Your task to perform on an android device: add a contact in the contacts app Image 0: 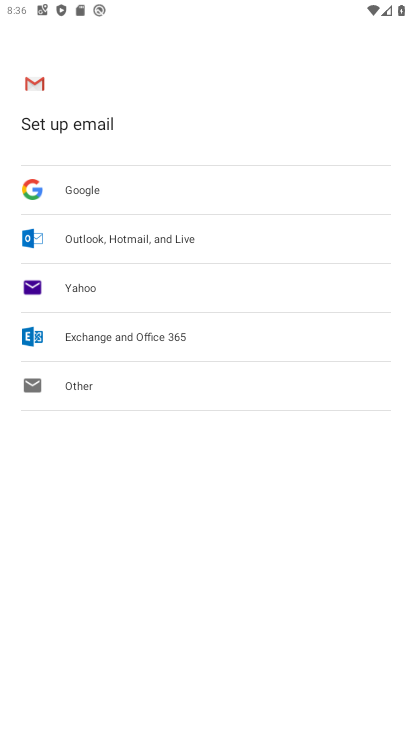
Step 0: drag from (185, 575) to (224, 389)
Your task to perform on an android device: add a contact in the contacts app Image 1: 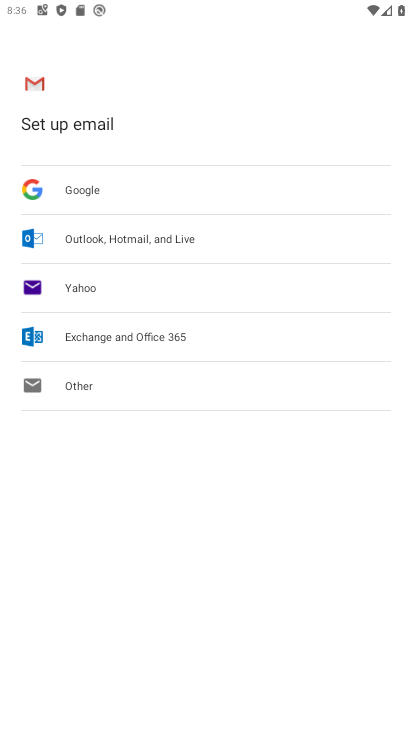
Step 1: drag from (248, 547) to (283, 127)
Your task to perform on an android device: add a contact in the contacts app Image 2: 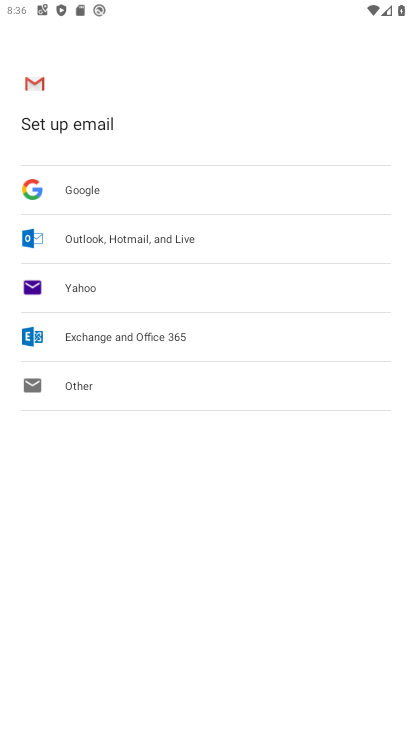
Step 2: drag from (210, 562) to (249, 184)
Your task to perform on an android device: add a contact in the contacts app Image 3: 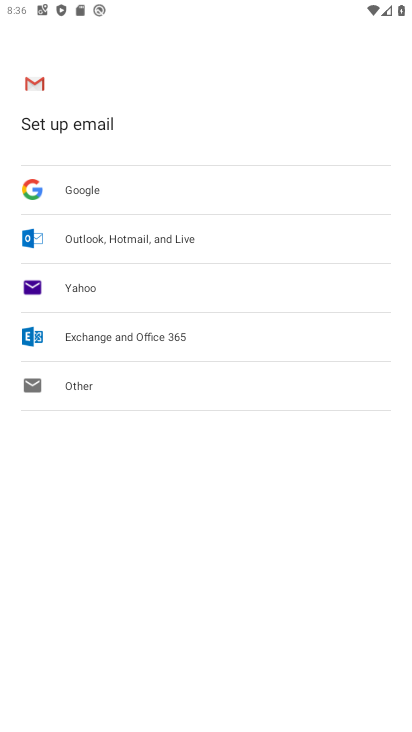
Step 3: press home button
Your task to perform on an android device: add a contact in the contacts app Image 4: 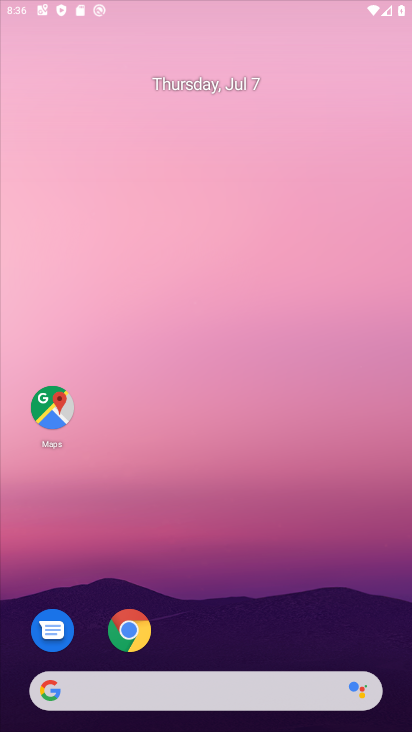
Step 4: drag from (172, 553) to (224, 177)
Your task to perform on an android device: add a contact in the contacts app Image 5: 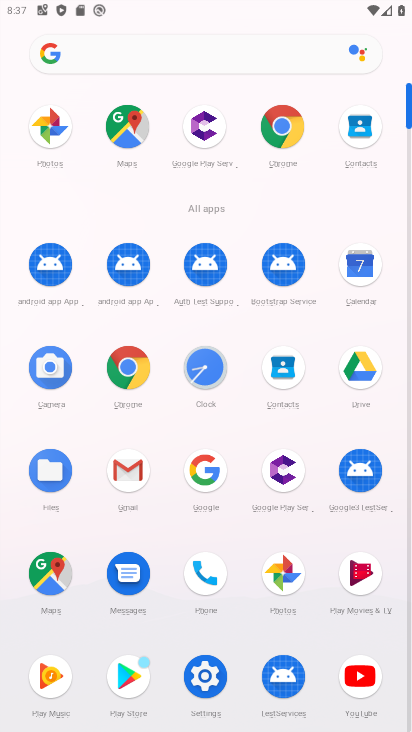
Step 5: click (282, 371)
Your task to perform on an android device: add a contact in the contacts app Image 6: 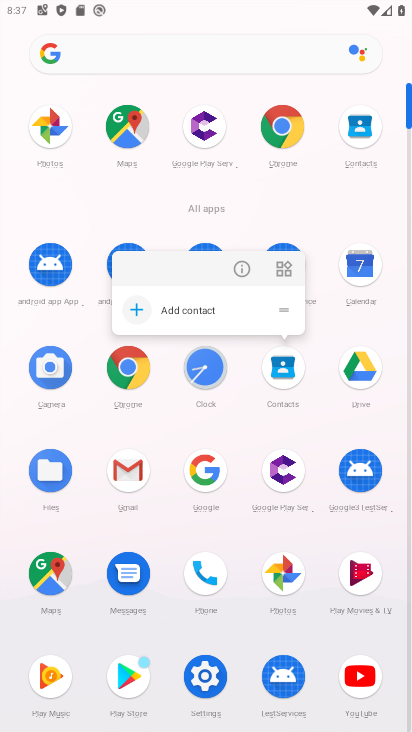
Step 6: click (240, 264)
Your task to perform on an android device: add a contact in the contacts app Image 7: 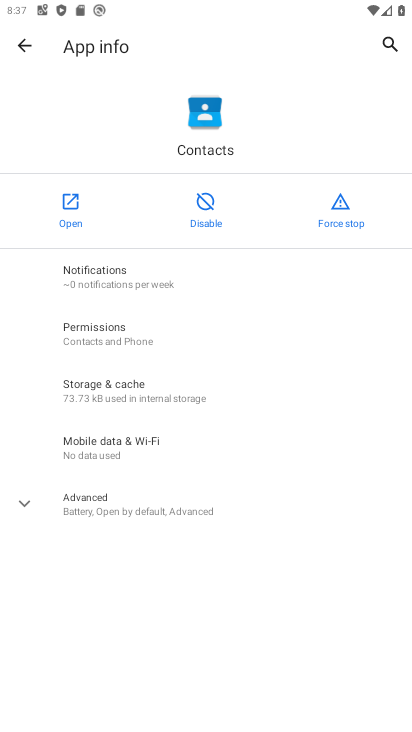
Step 7: click (61, 219)
Your task to perform on an android device: add a contact in the contacts app Image 8: 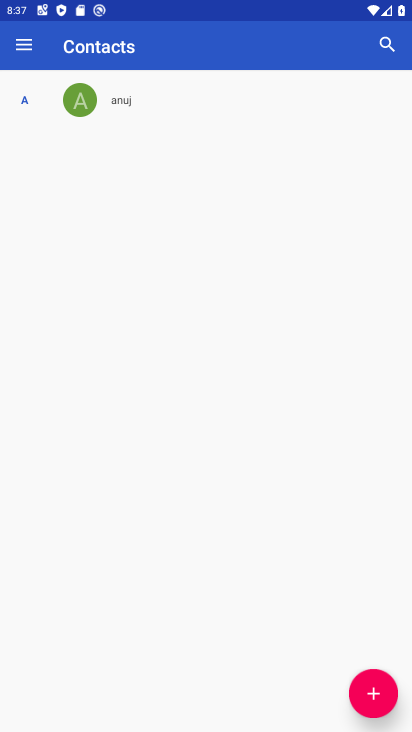
Step 8: drag from (298, 551) to (236, 282)
Your task to perform on an android device: add a contact in the contacts app Image 9: 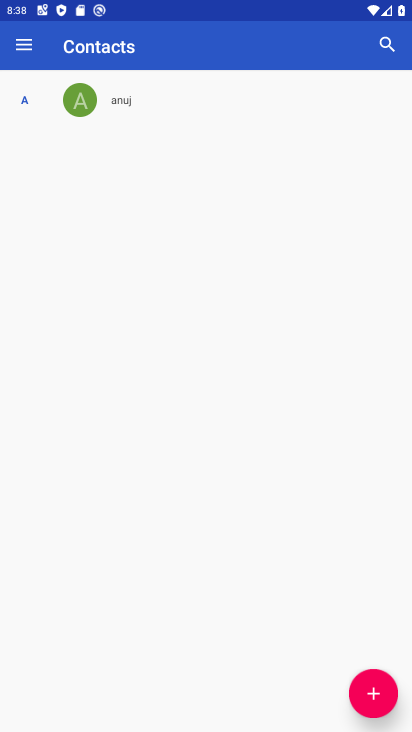
Step 9: drag from (189, 409) to (218, 147)
Your task to perform on an android device: add a contact in the contacts app Image 10: 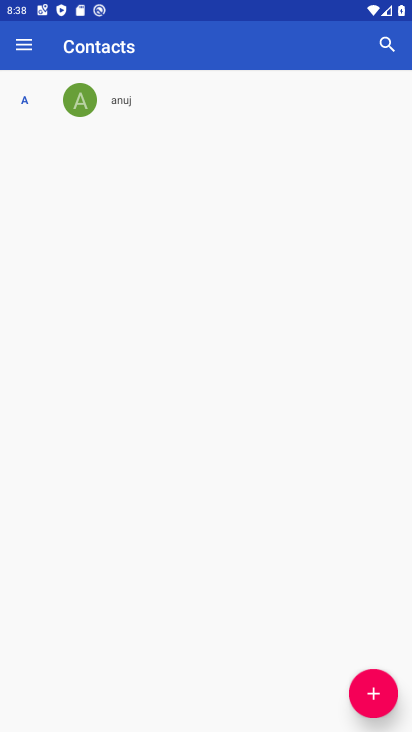
Step 10: click (370, 686)
Your task to perform on an android device: add a contact in the contacts app Image 11: 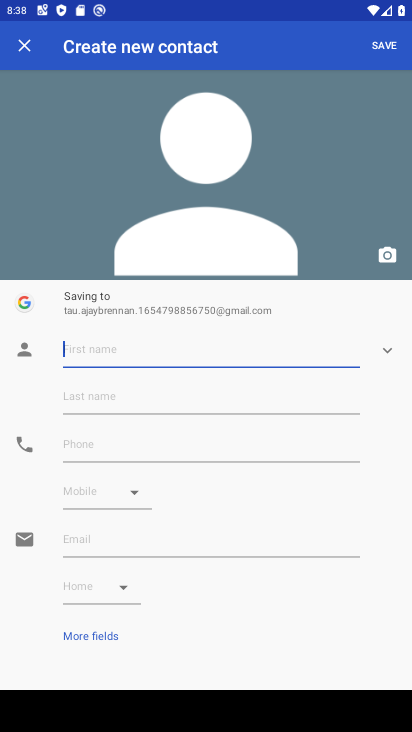
Step 11: type "smak"
Your task to perform on an android device: add a contact in the contacts app Image 12: 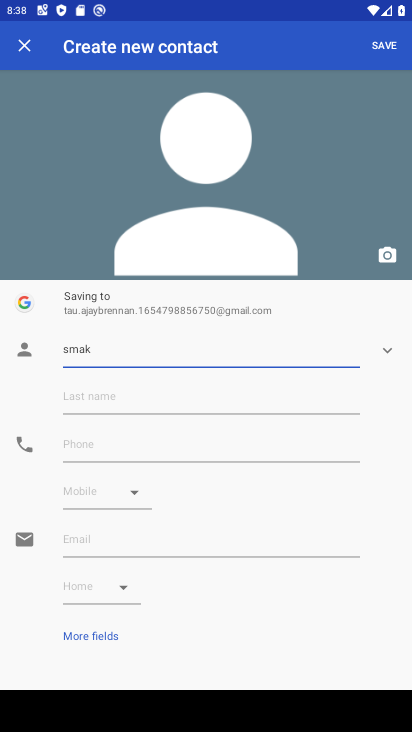
Step 12: click (119, 443)
Your task to perform on an android device: add a contact in the contacts app Image 13: 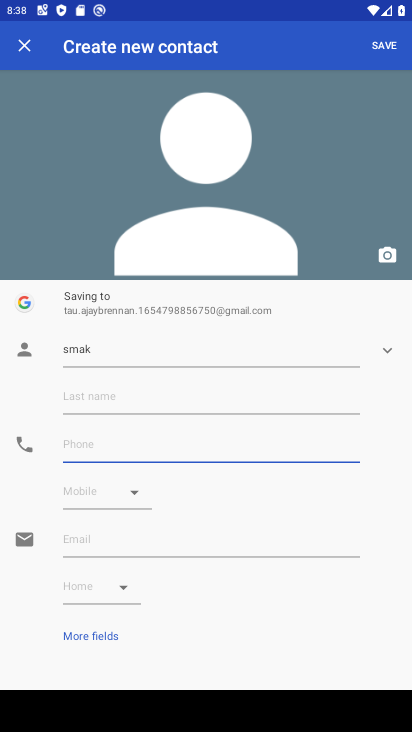
Step 13: type "897890"
Your task to perform on an android device: add a contact in the contacts app Image 14: 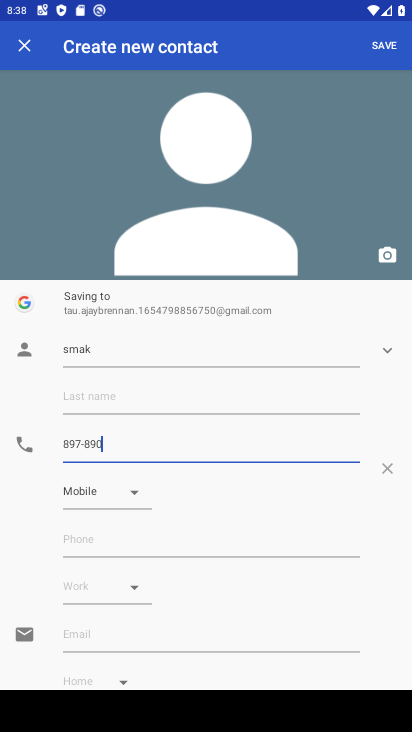
Step 14: click (388, 45)
Your task to perform on an android device: add a contact in the contacts app Image 15: 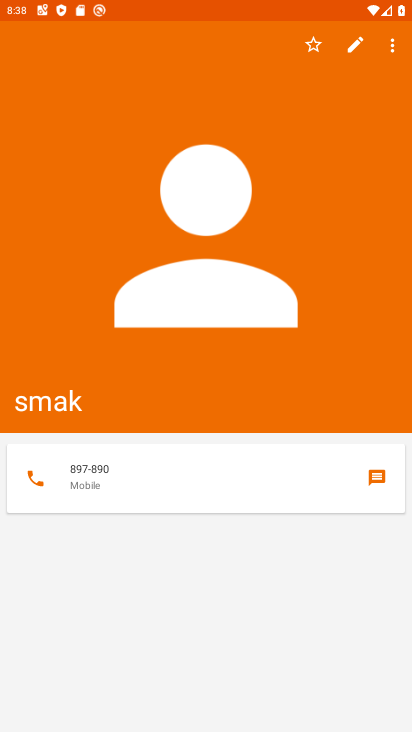
Step 15: task complete